Your task to perform on an android device: Open the Play Movies app and select the watchlist tab. Image 0: 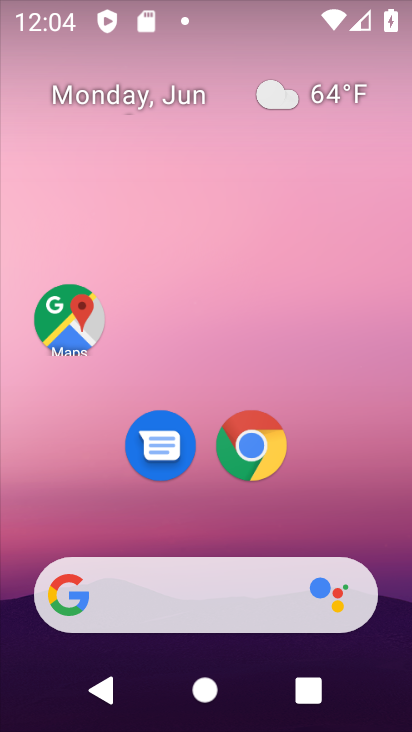
Step 0: drag from (288, 613) to (316, 7)
Your task to perform on an android device: Open the Play Movies app and select the watchlist tab. Image 1: 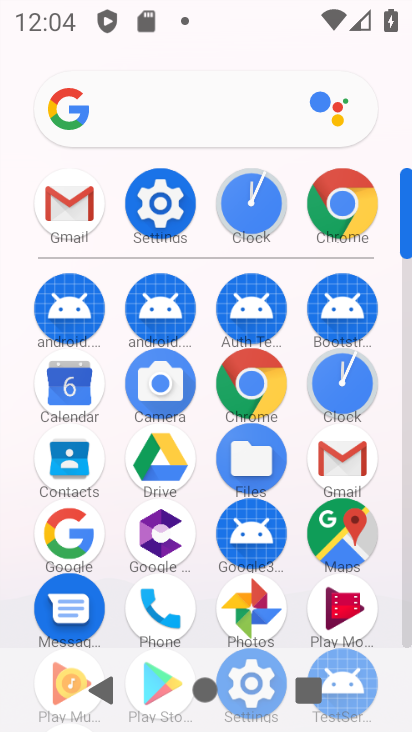
Step 1: drag from (294, 589) to (296, 368)
Your task to perform on an android device: Open the Play Movies app and select the watchlist tab. Image 2: 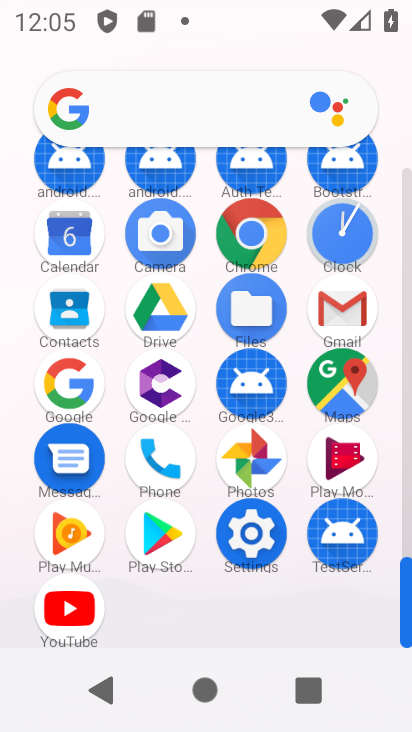
Step 2: click (332, 461)
Your task to perform on an android device: Open the Play Movies app and select the watchlist tab. Image 3: 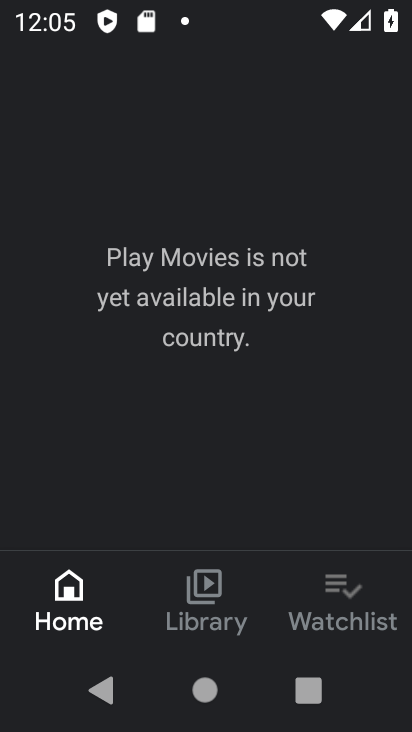
Step 3: click (385, 596)
Your task to perform on an android device: Open the Play Movies app and select the watchlist tab. Image 4: 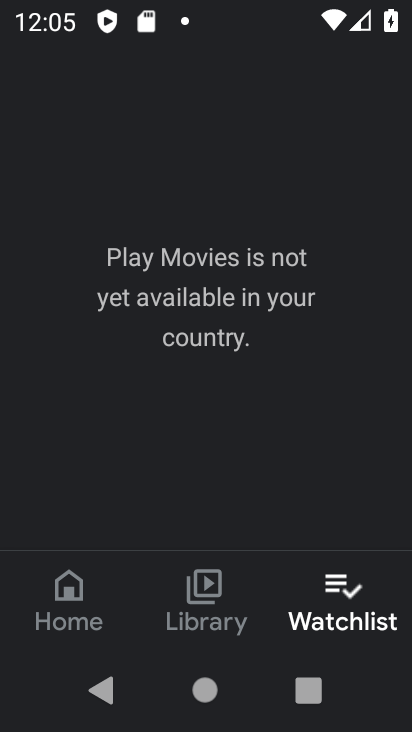
Step 4: task complete